Your task to perform on an android device: Open wifi settings Image 0: 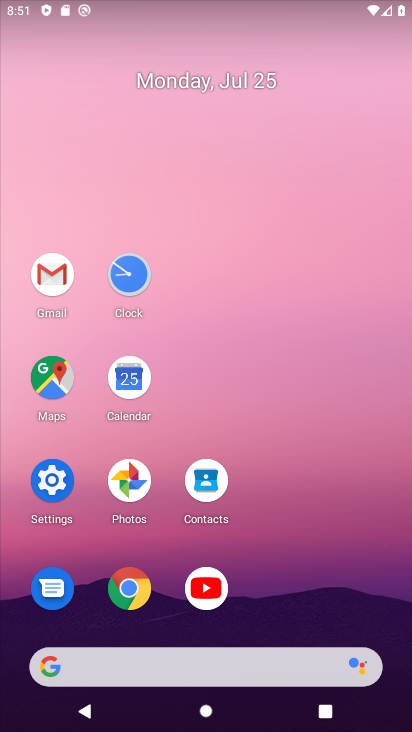
Step 0: click (50, 479)
Your task to perform on an android device: Open wifi settings Image 1: 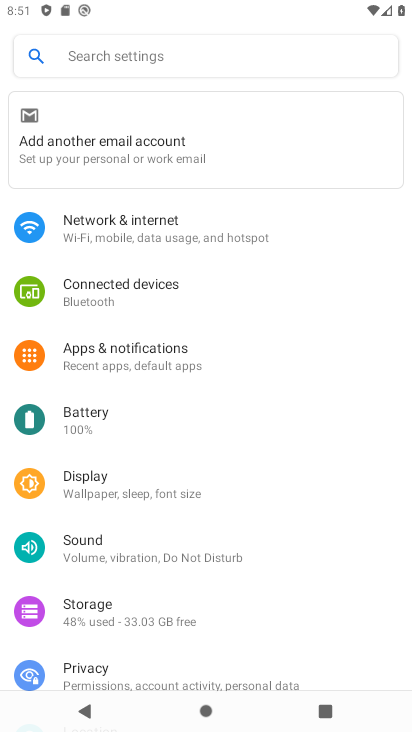
Step 1: click (78, 223)
Your task to perform on an android device: Open wifi settings Image 2: 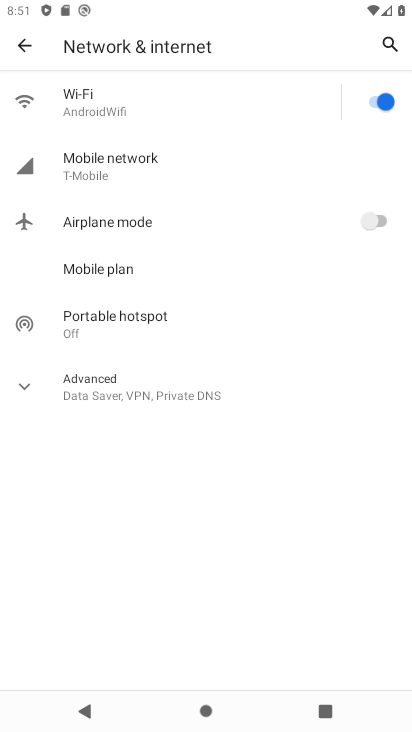
Step 2: click (95, 100)
Your task to perform on an android device: Open wifi settings Image 3: 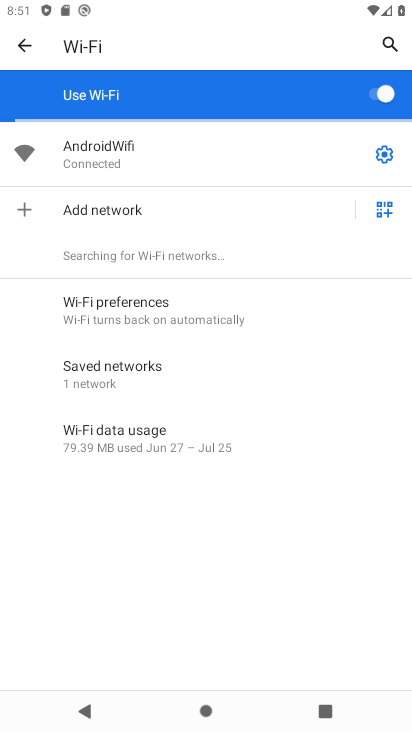
Step 3: task complete